Your task to perform on an android device: Show me the alarms in the clock app Image 0: 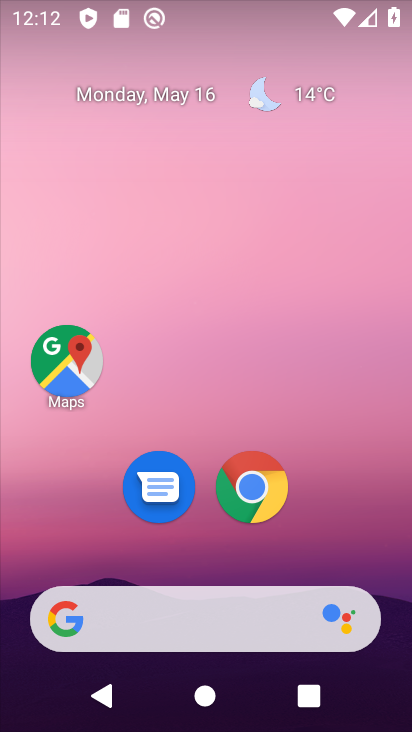
Step 0: drag from (179, 583) to (321, 101)
Your task to perform on an android device: Show me the alarms in the clock app Image 1: 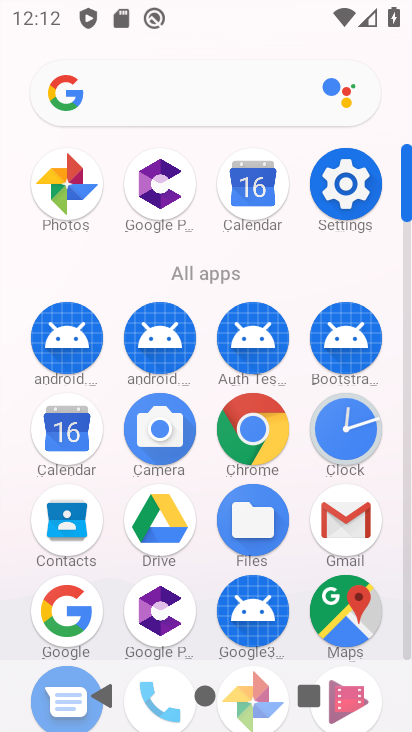
Step 1: click (362, 439)
Your task to perform on an android device: Show me the alarms in the clock app Image 2: 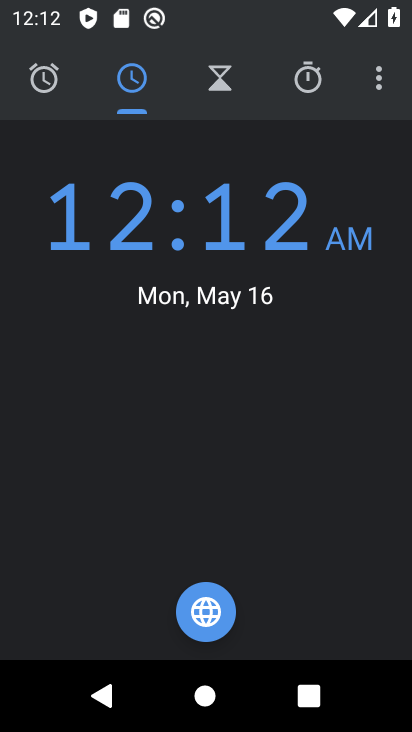
Step 2: click (46, 88)
Your task to perform on an android device: Show me the alarms in the clock app Image 3: 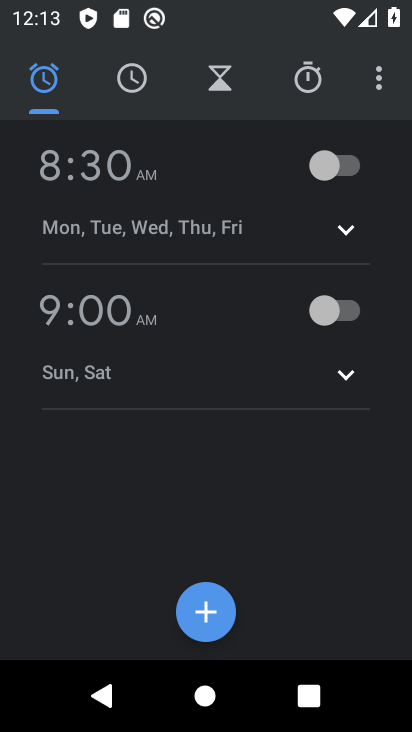
Step 3: task complete